Your task to perform on an android device: open device folders in google photos Image 0: 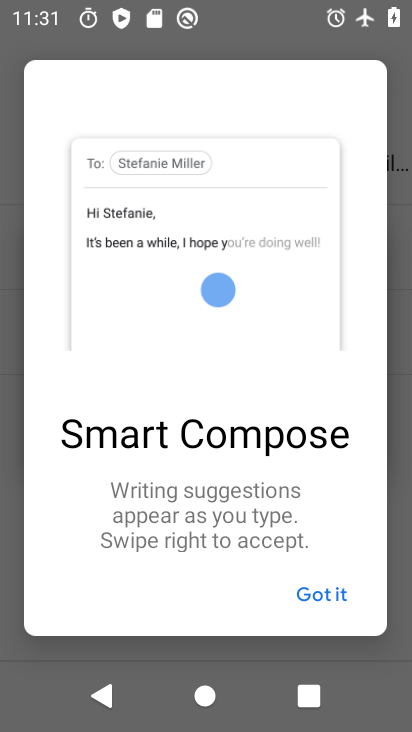
Step 0: press home button
Your task to perform on an android device: open device folders in google photos Image 1: 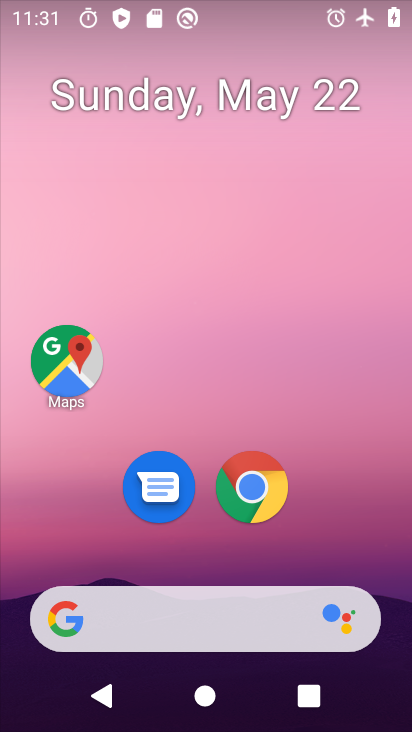
Step 1: drag from (367, 524) to (352, 146)
Your task to perform on an android device: open device folders in google photos Image 2: 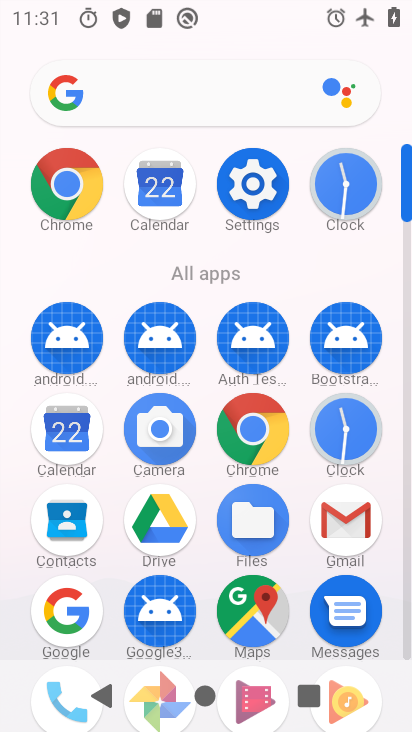
Step 2: drag from (302, 645) to (320, 360)
Your task to perform on an android device: open device folders in google photos Image 3: 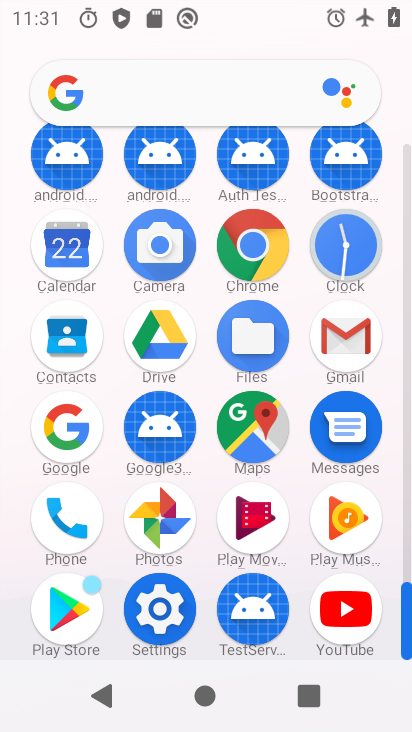
Step 3: click (164, 529)
Your task to perform on an android device: open device folders in google photos Image 4: 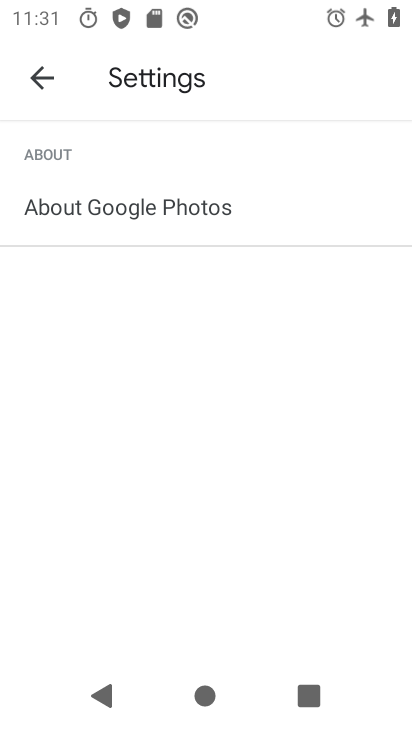
Step 4: click (35, 89)
Your task to perform on an android device: open device folders in google photos Image 5: 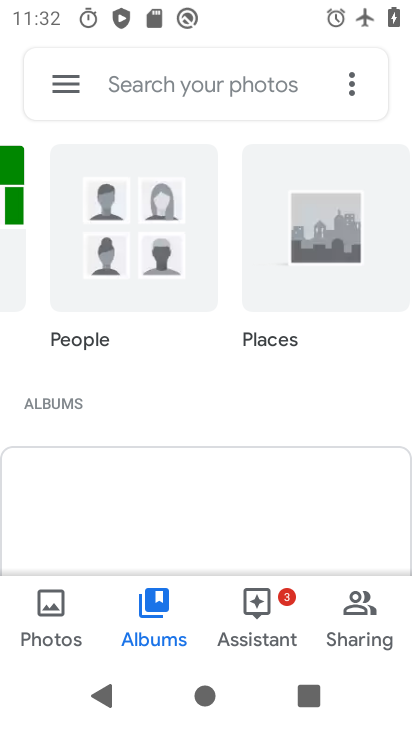
Step 5: drag from (172, 513) to (193, 219)
Your task to perform on an android device: open device folders in google photos Image 6: 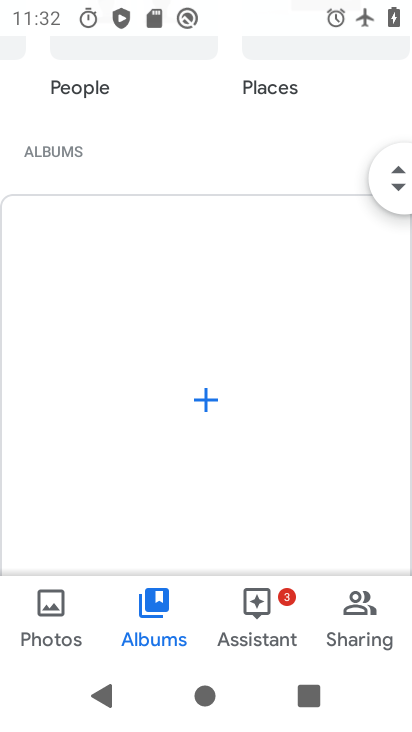
Step 6: drag from (97, 167) to (111, 450)
Your task to perform on an android device: open device folders in google photos Image 7: 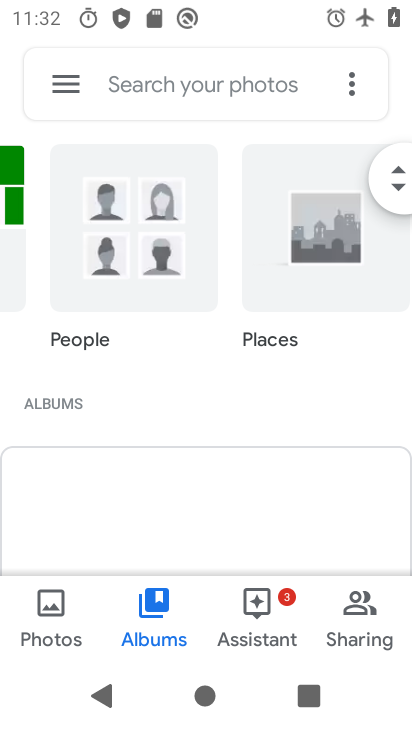
Step 7: click (65, 83)
Your task to perform on an android device: open device folders in google photos Image 8: 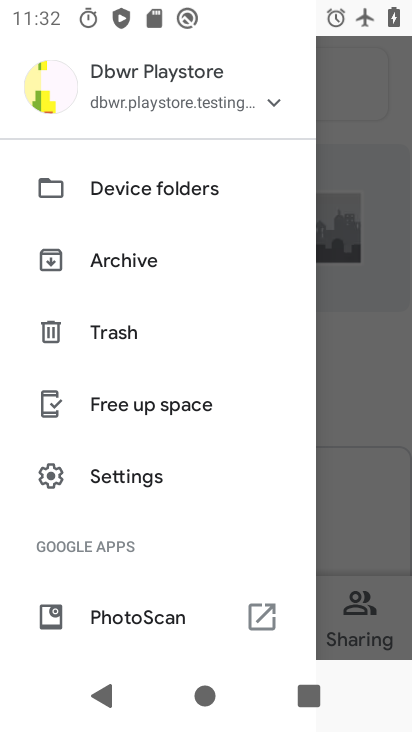
Step 8: click (119, 182)
Your task to perform on an android device: open device folders in google photos Image 9: 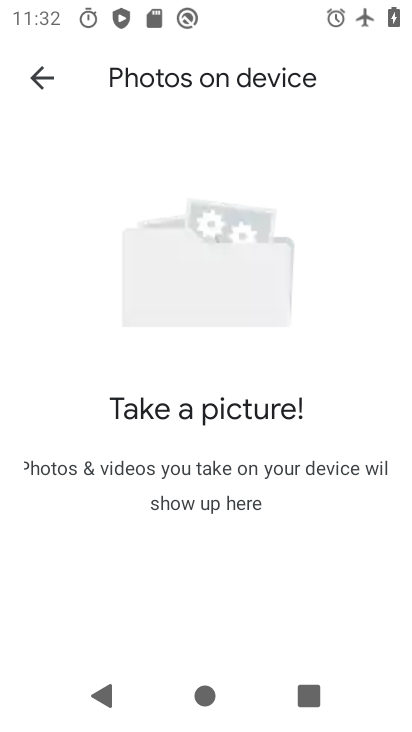
Step 9: task complete